Your task to perform on an android device: Search for seafood restaurants on Google Maps Image 0: 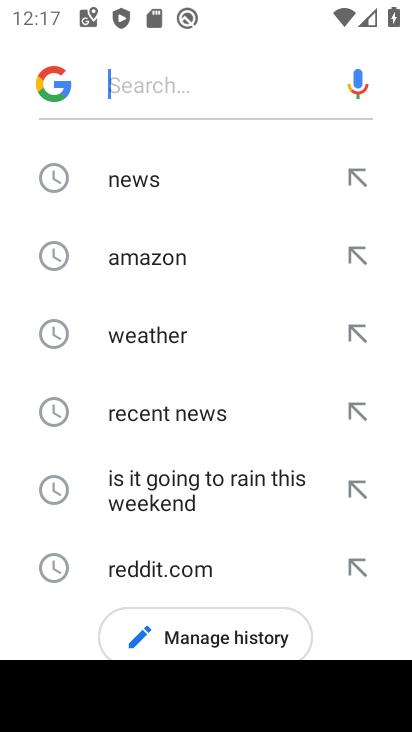
Step 0: press home button
Your task to perform on an android device: Search for seafood restaurants on Google Maps Image 1: 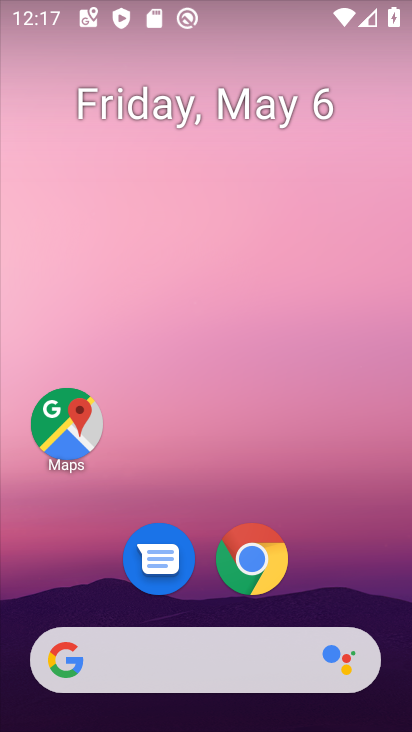
Step 1: drag from (318, 596) to (283, 0)
Your task to perform on an android device: Search for seafood restaurants on Google Maps Image 2: 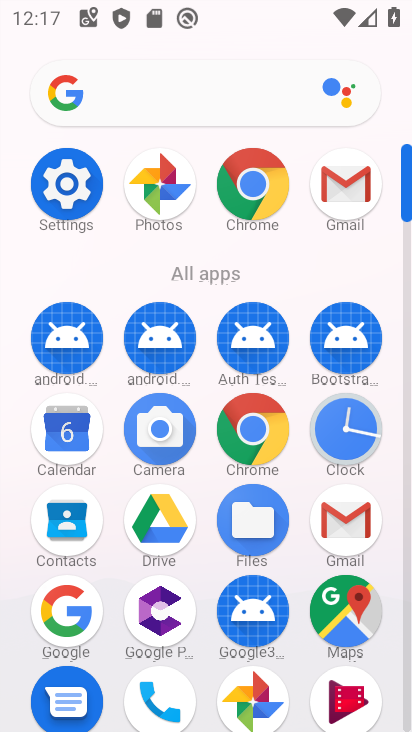
Step 2: click (322, 614)
Your task to perform on an android device: Search for seafood restaurants on Google Maps Image 3: 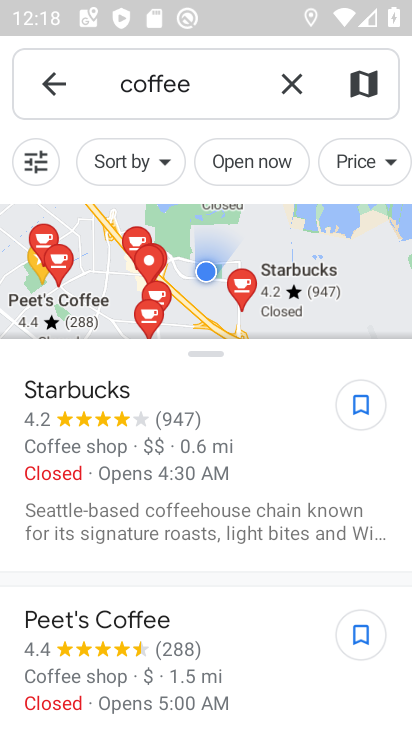
Step 3: click (295, 86)
Your task to perform on an android device: Search for seafood restaurants on Google Maps Image 4: 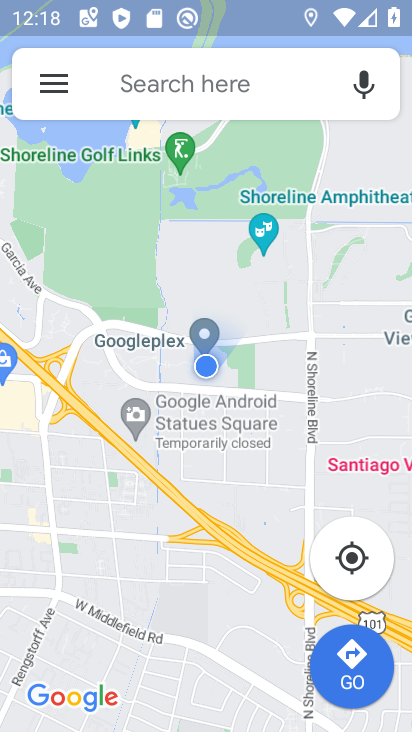
Step 4: click (223, 73)
Your task to perform on an android device: Search for seafood restaurants on Google Maps Image 5: 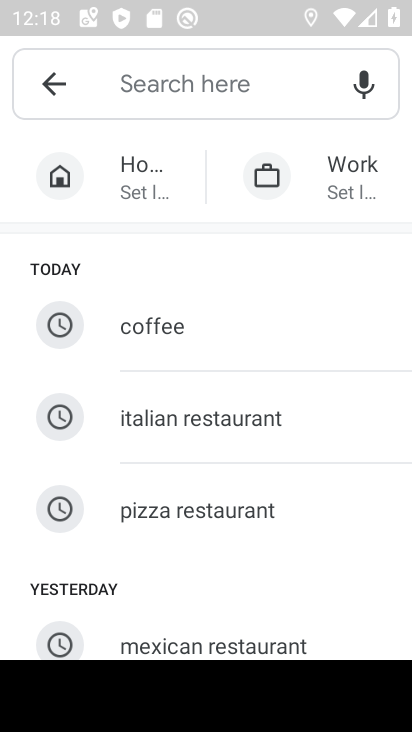
Step 5: type "seafood restaurants"
Your task to perform on an android device: Search for seafood restaurants on Google Maps Image 6: 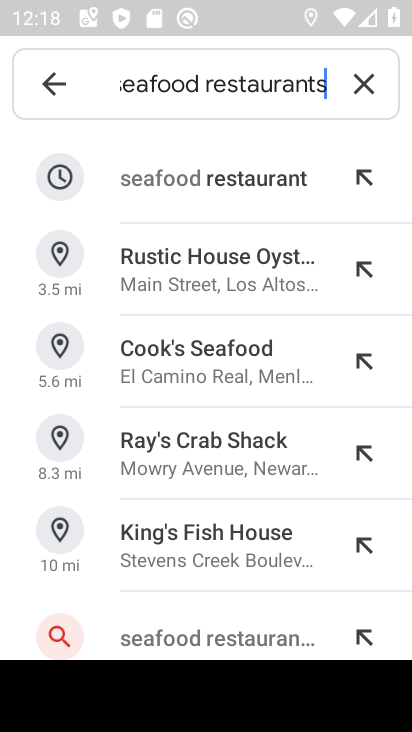
Step 6: click (272, 191)
Your task to perform on an android device: Search for seafood restaurants on Google Maps Image 7: 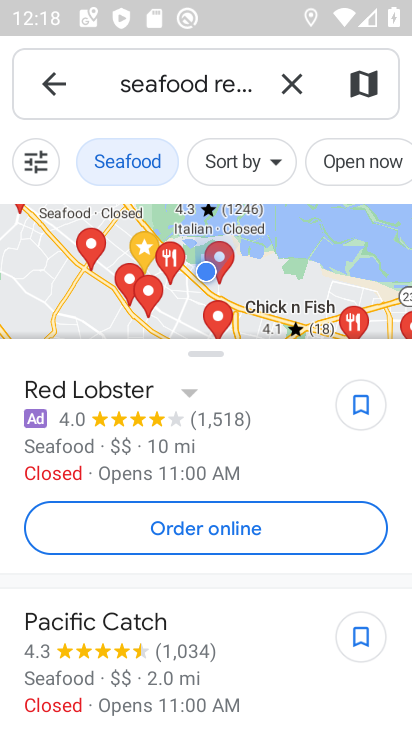
Step 7: task complete